Your task to perform on an android device: Go to privacy settings Image 0: 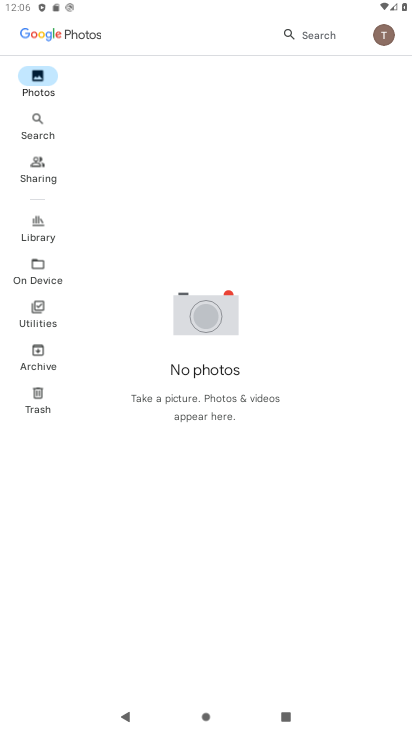
Step 0: press home button
Your task to perform on an android device: Go to privacy settings Image 1: 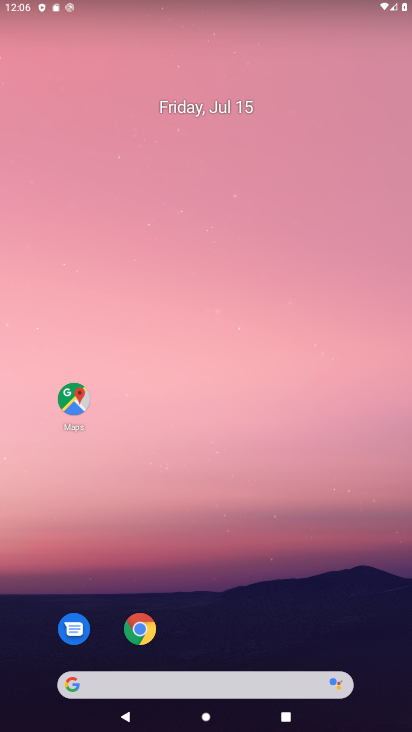
Step 1: drag from (247, 612) to (232, 51)
Your task to perform on an android device: Go to privacy settings Image 2: 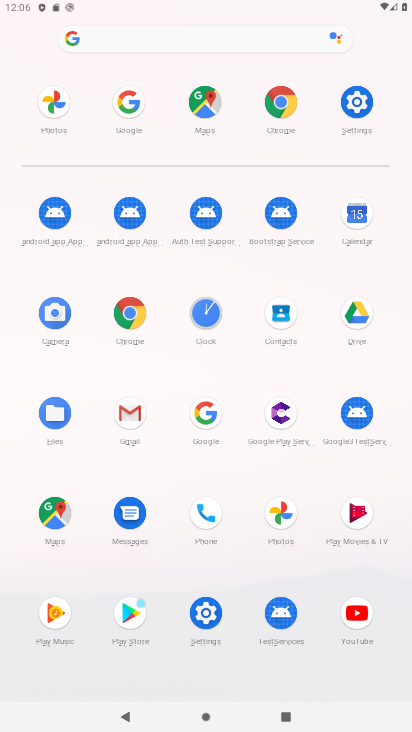
Step 2: click (203, 614)
Your task to perform on an android device: Go to privacy settings Image 3: 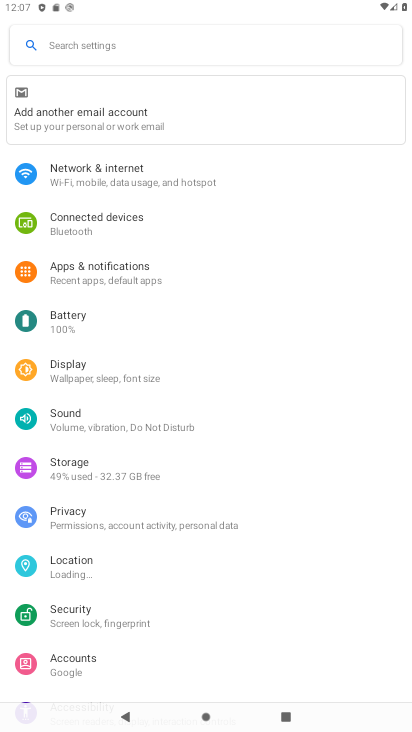
Step 3: drag from (195, 646) to (179, 211)
Your task to perform on an android device: Go to privacy settings Image 4: 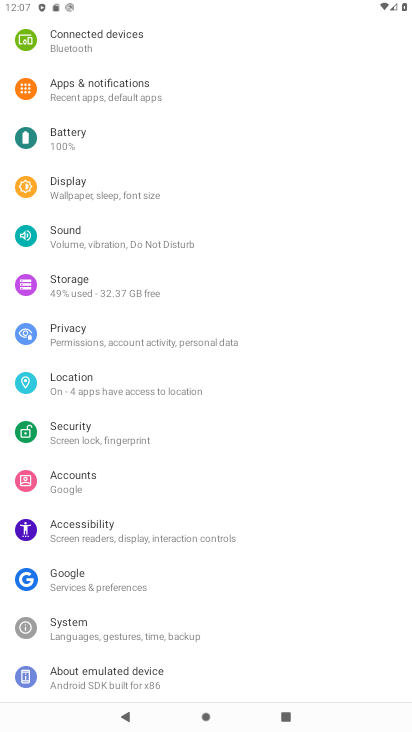
Step 4: click (77, 333)
Your task to perform on an android device: Go to privacy settings Image 5: 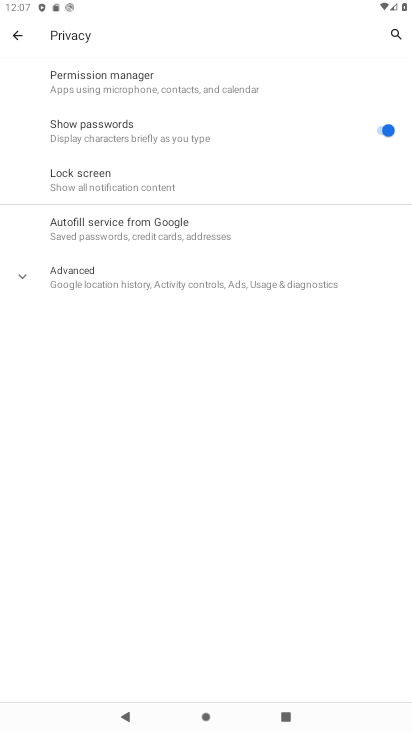
Step 5: task complete